Your task to perform on an android device: turn on improve location accuracy Image 0: 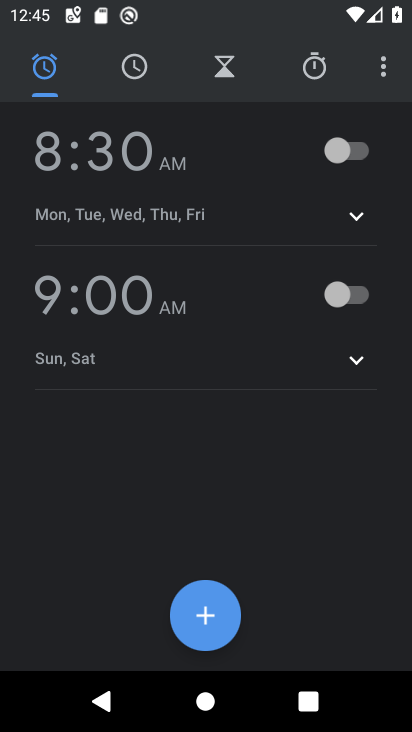
Step 0: press home button
Your task to perform on an android device: turn on improve location accuracy Image 1: 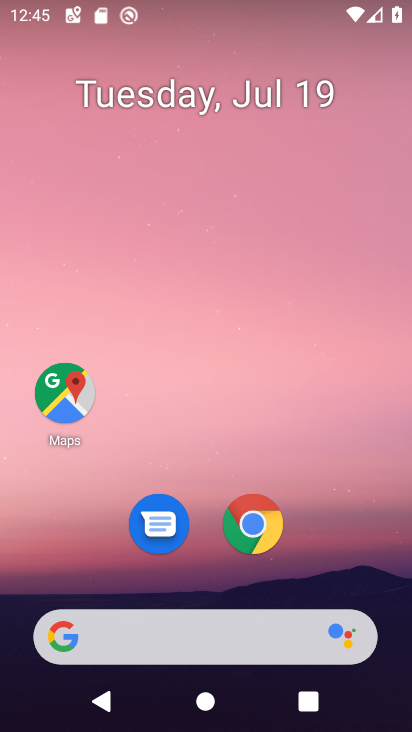
Step 1: drag from (348, 567) to (294, 18)
Your task to perform on an android device: turn on improve location accuracy Image 2: 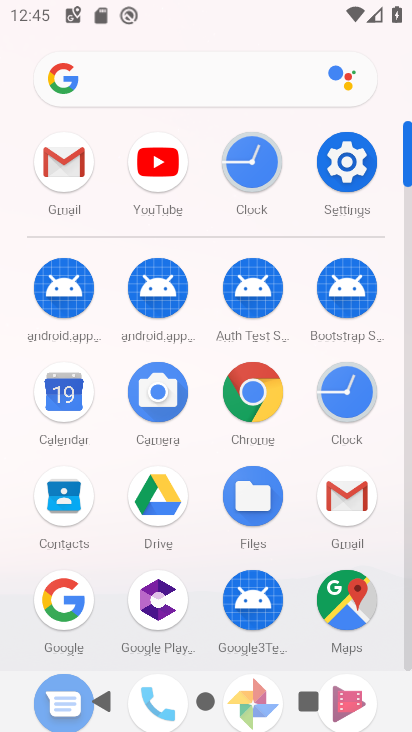
Step 2: click (351, 169)
Your task to perform on an android device: turn on improve location accuracy Image 3: 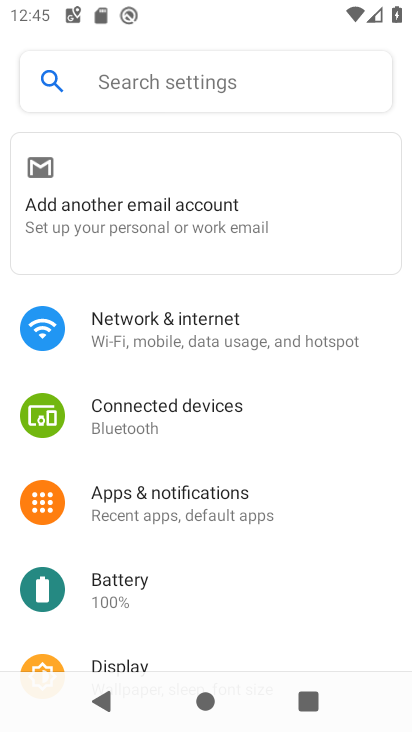
Step 3: drag from (225, 540) to (238, 34)
Your task to perform on an android device: turn on improve location accuracy Image 4: 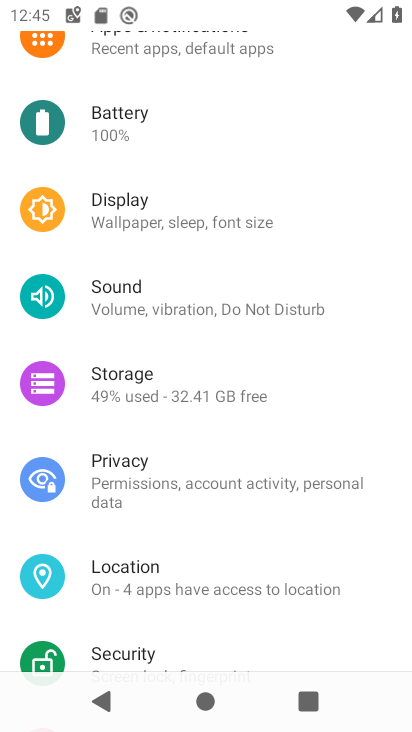
Step 4: click (196, 574)
Your task to perform on an android device: turn on improve location accuracy Image 5: 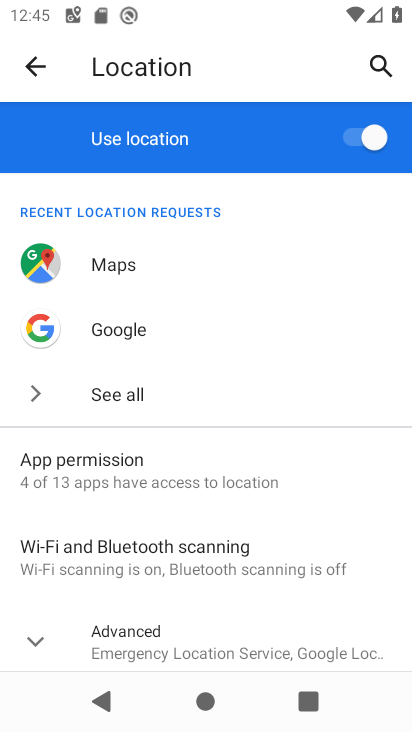
Step 5: click (39, 647)
Your task to perform on an android device: turn on improve location accuracy Image 6: 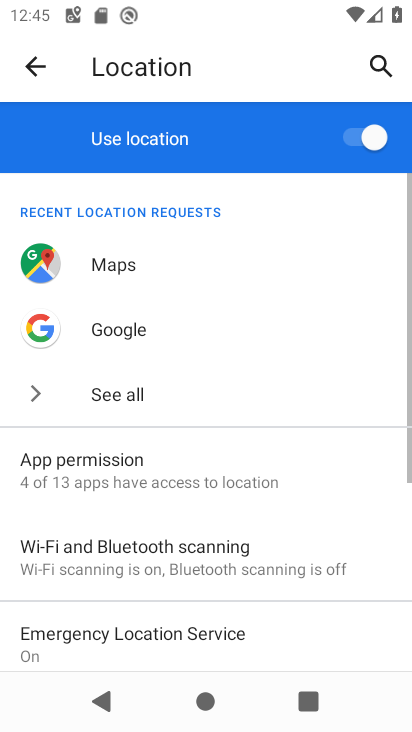
Step 6: drag from (253, 495) to (228, 169)
Your task to perform on an android device: turn on improve location accuracy Image 7: 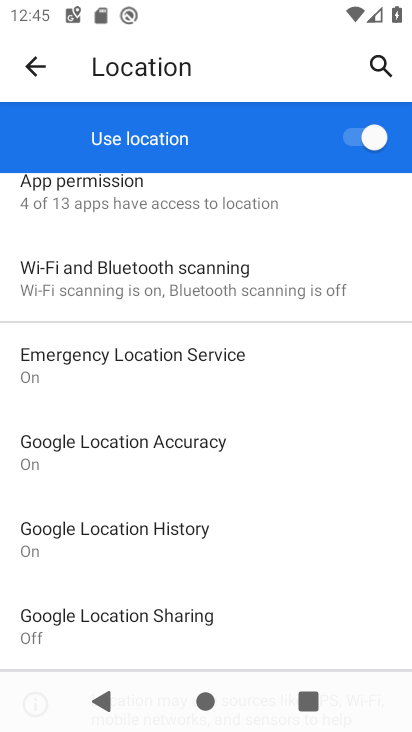
Step 7: click (190, 432)
Your task to perform on an android device: turn on improve location accuracy Image 8: 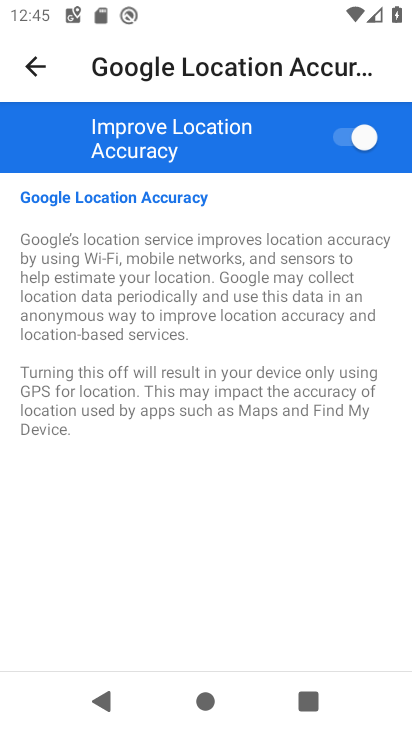
Step 8: task complete